Your task to perform on an android device: open wifi settings Image 0: 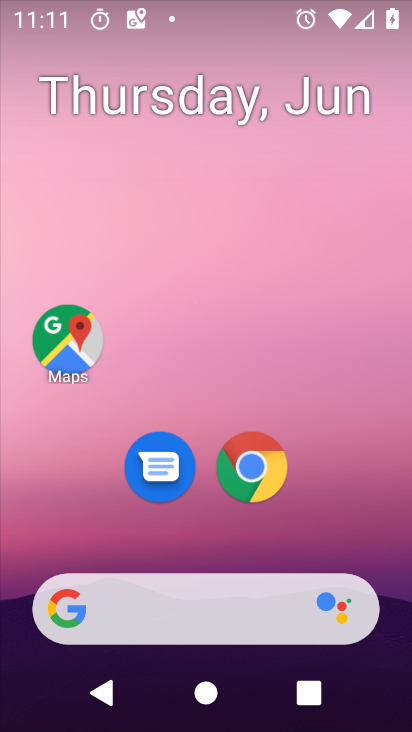
Step 0: drag from (30, 642) to (269, 94)
Your task to perform on an android device: open wifi settings Image 1: 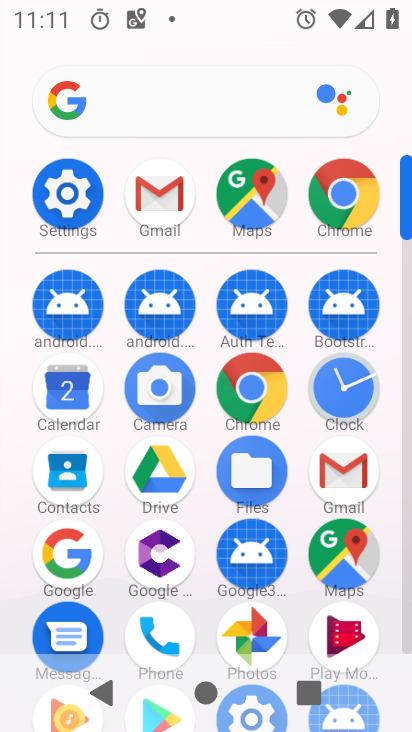
Step 1: click (69, 208)
Your task to perform on an android device: open wifi settings Image 2: 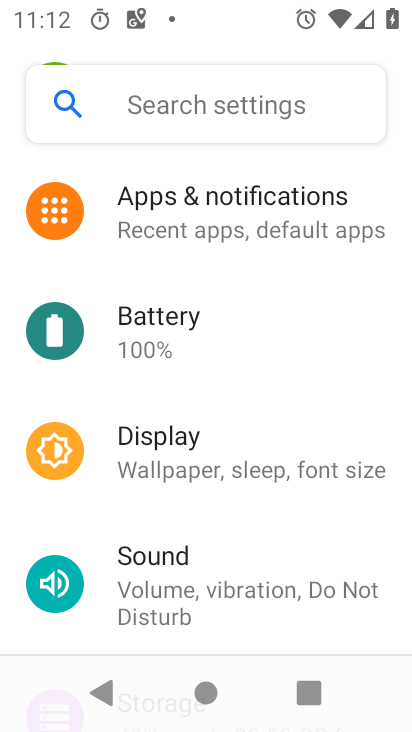
Step 2: drag from (161, 217) to (225, 649)
Your task to perform on an android device: open wifi settings Image 3: 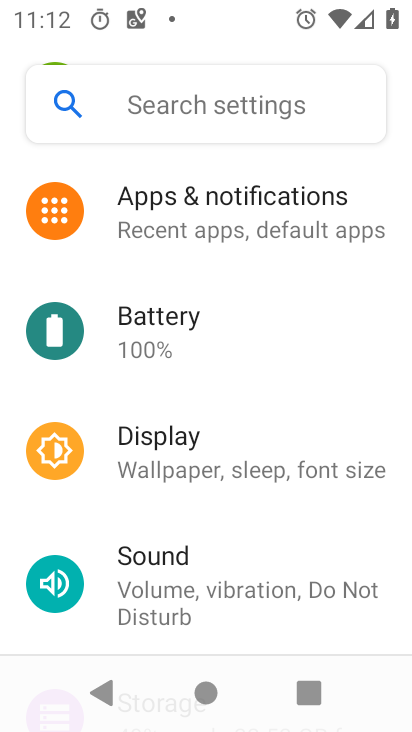
Step 3: drag from (72, 218) to (4, 451)
Your task to perform on an android device: open wifi settings Image 4: 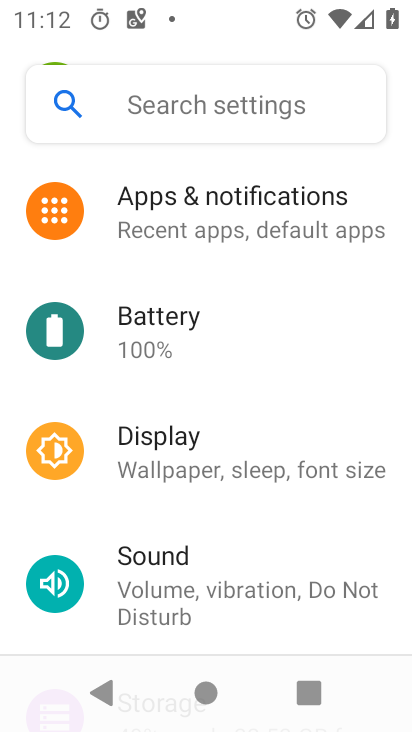
Step 4: press back button
Your task to perform on an android device: open wifi settings Image 5: 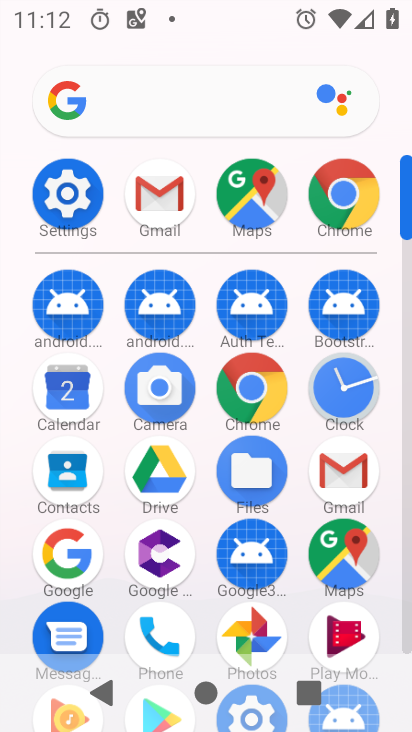
Step 5: click (65, 195)
Your task to perform on an android device: open wifi settings Image 6: 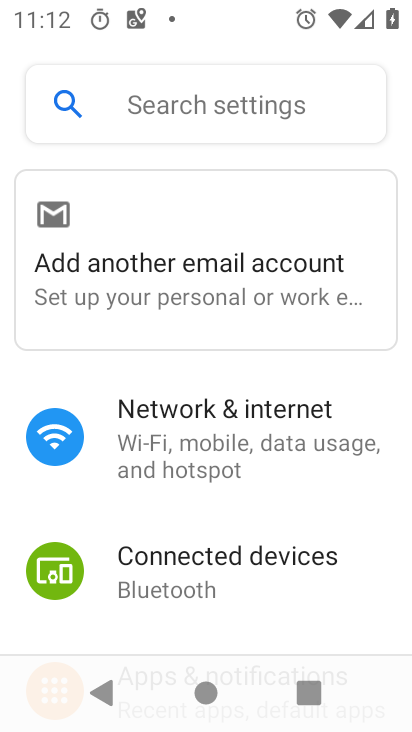
Step 6: click (194, 424)
Your task to perform on an android device: open wifi settings Image 7: 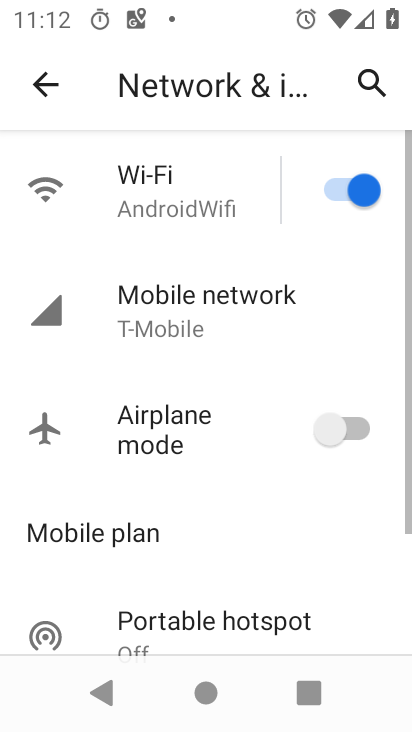
Step 7: click (182, 174)
Your task to perform on an android device: open wifi settings Image 8: 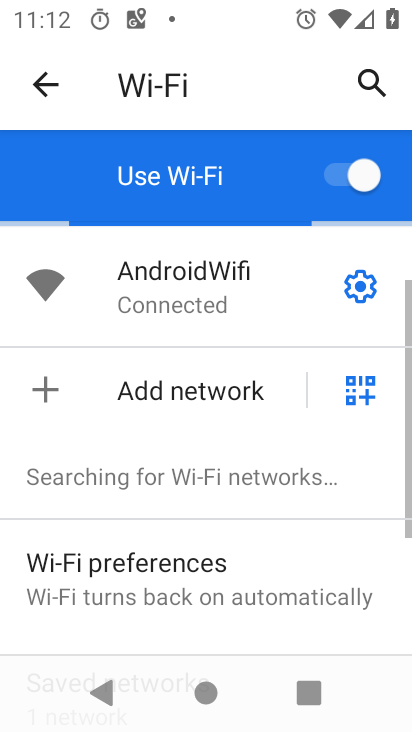
Step 8: click (360, 283)
Your task to perform on an android device: open wifi settings Image 9: 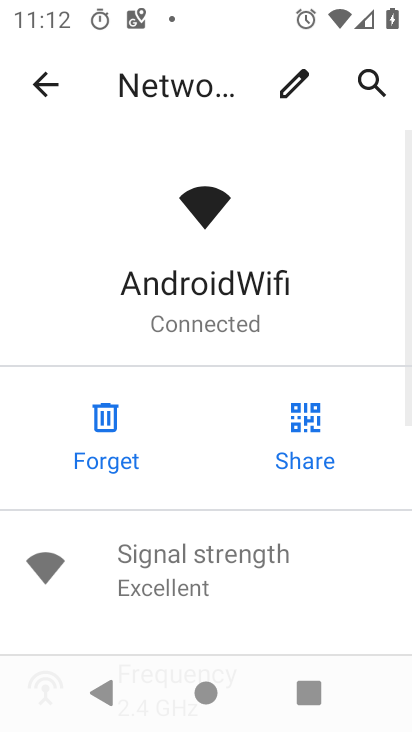
Step 9: task complete